Your task to perform on an android device: open app "McDonald's" Image 0: 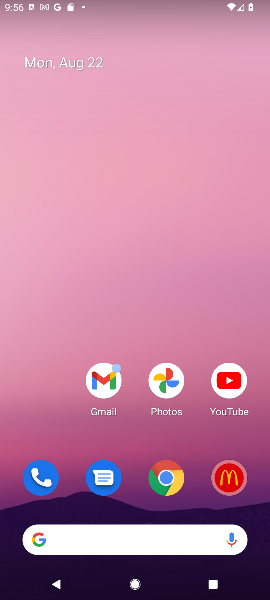
Step 0: drag from (132, 508) to (150, 19)
Your task to perform on an android device: open app "McDonald's" Image 1: 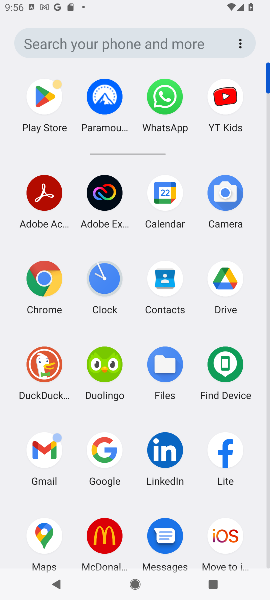
Step 1: click (36, 99)
Your task to perform on an android device: open app "McDonald's" Image 2: 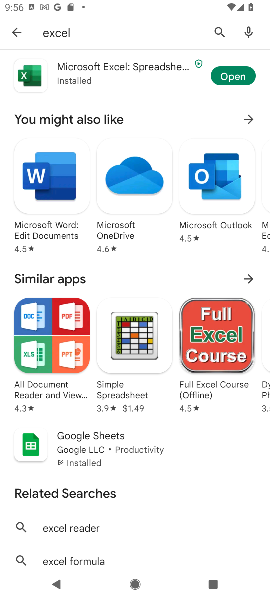
Step 2: click (219, 24)
Your task to perform on an android device: open app "McDonald's" Image 3: 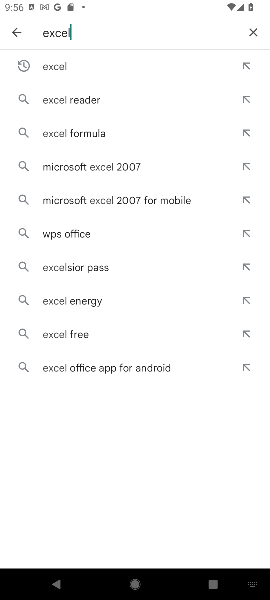
Step 3: click (252, 37)
Your task to perform on an android device: open app "McDonald's" Image 4: 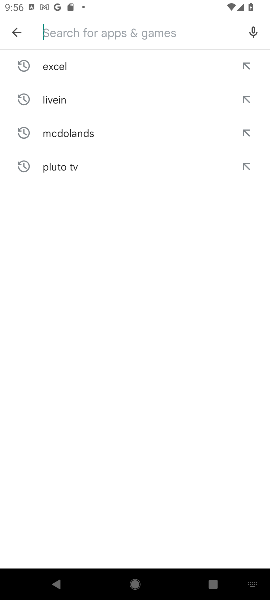
Step 4: type "google play music"
Your task to perform on an android device: open app "McDonald's" Image 5: 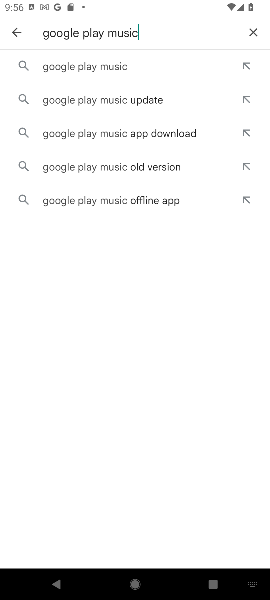
Step 5: click (118, 77)
Your task to perform on an android device: open app "McDonald's" Image 6: 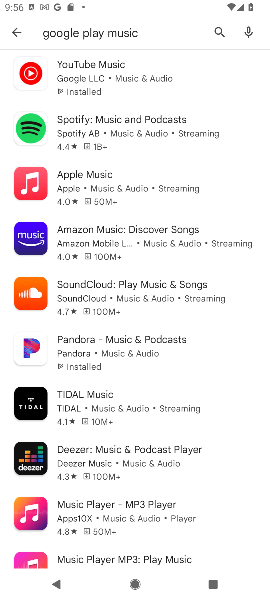
Step 6: click (173, 77)
Your task to perform on an android device: open app "McDonald's" Image 7: 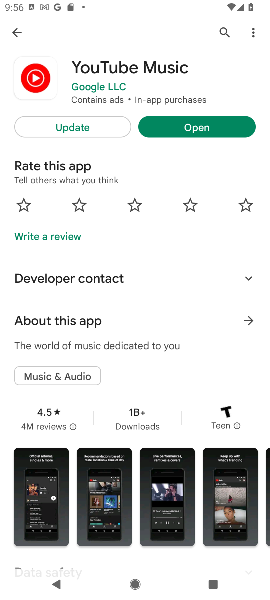
Step 7: click (205, 129)
Your task to perform on an android device: open app "McDonald's" Image 8: 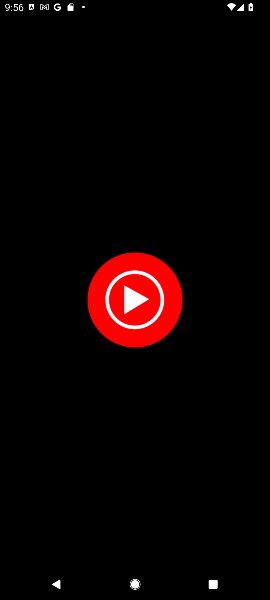
Step 8: task complete